Your task to perform on an android device: refresh tabs in the chrome app Image 0: 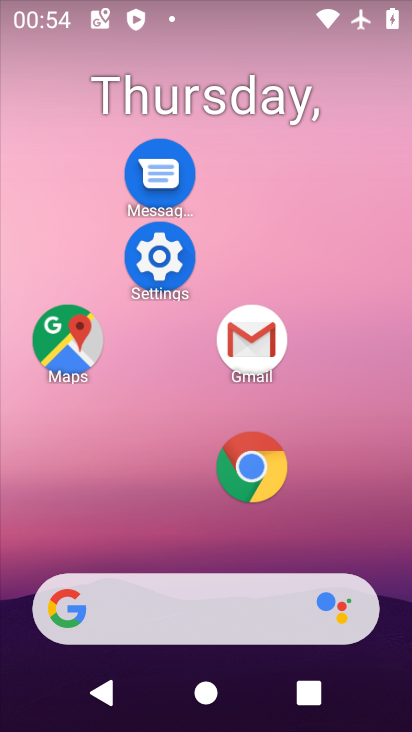
Step 0: drag from (234, 503) to (238, 136)
Your task to perform on an android device: refresh tabs in the chrome app Image 1: 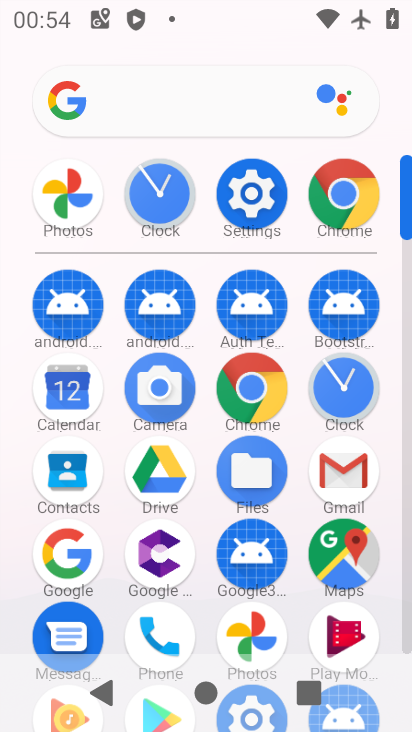
Step 1: click (247, 385)
Your task to perform on an android device: refresh tabs in the chrome app Image 2: 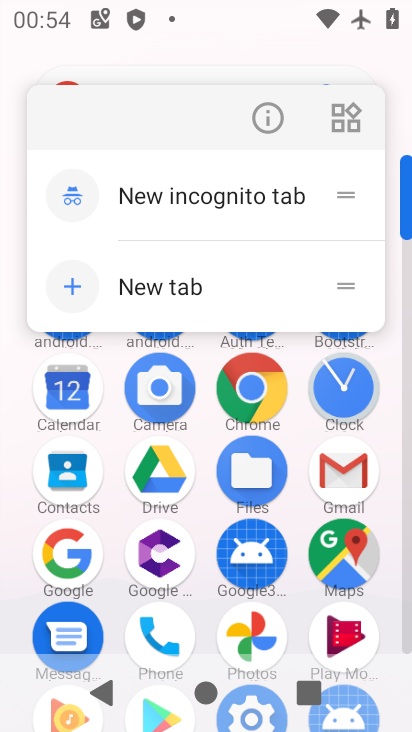
Step 2: click (271, 136)
Your task to perform on an android device: refresh tabs in the chrome app Image 3: 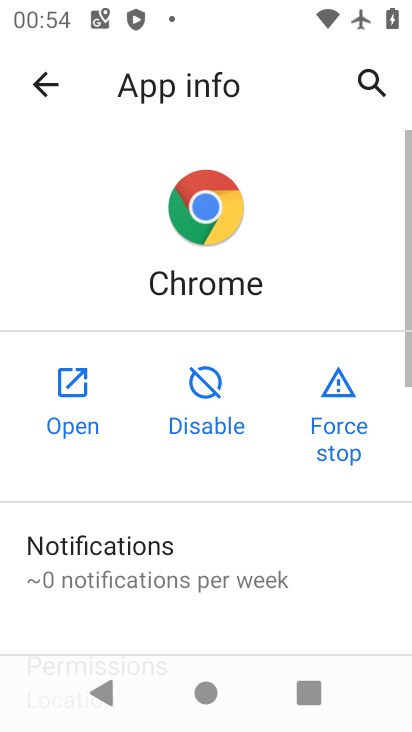
Step 3: drag from (199, 582) to (231, 230)
Your task to perform on an android device: refresh tabs in the chrome app Image 4: 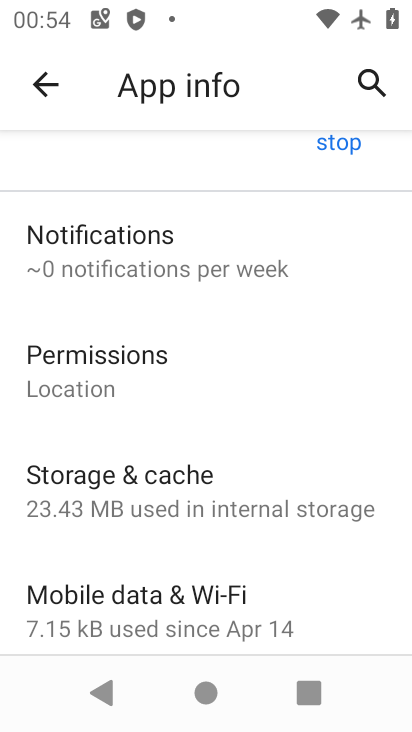
Step 4: drag from (97, 289) to (318, 721)
Your task to perform on an android device: refresh tabs in the chrome app Image 5: 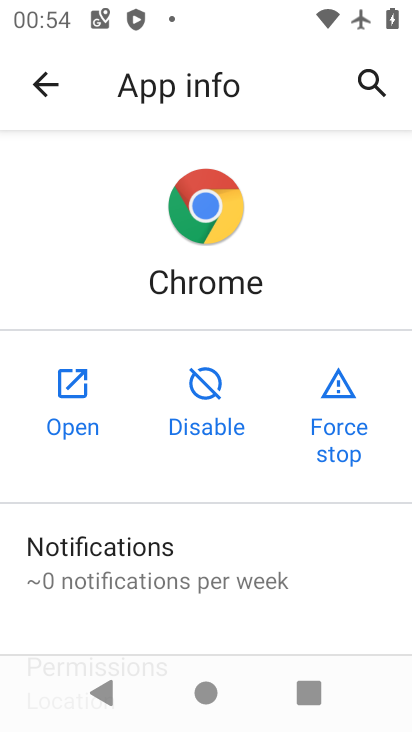
Step 5: click (75, 405)
Your task to perform on an android device: refresh tabs in the chrome app Image 6: 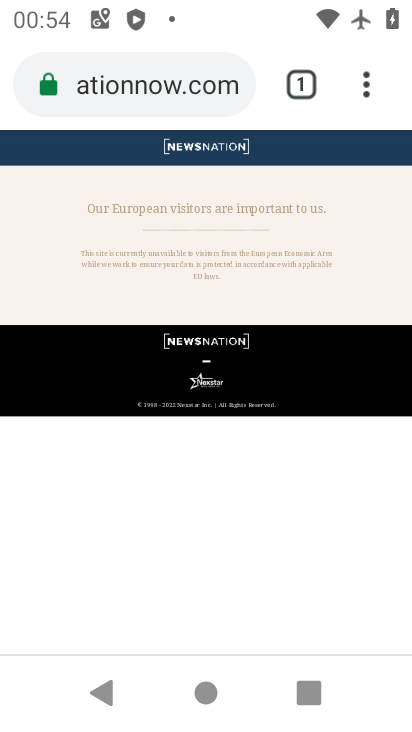
Step 6: click (373, 77)
Your task to perform on an android device: refresh tabs in the chrome app Image 7: 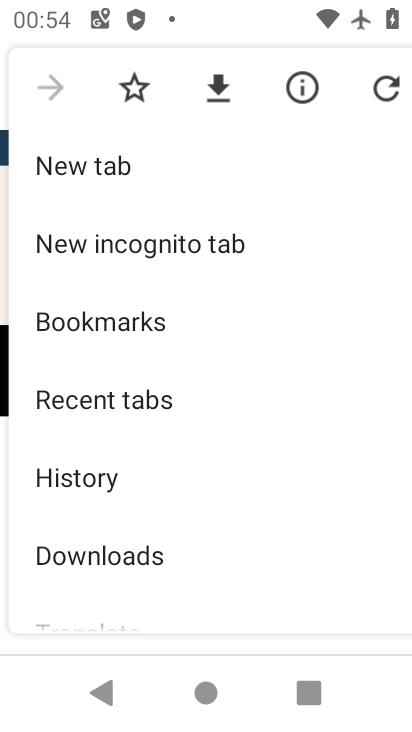
Step 7: click (373, 77)
Your task to perform on an android device: refresh tabs in the chrome app Image 8: 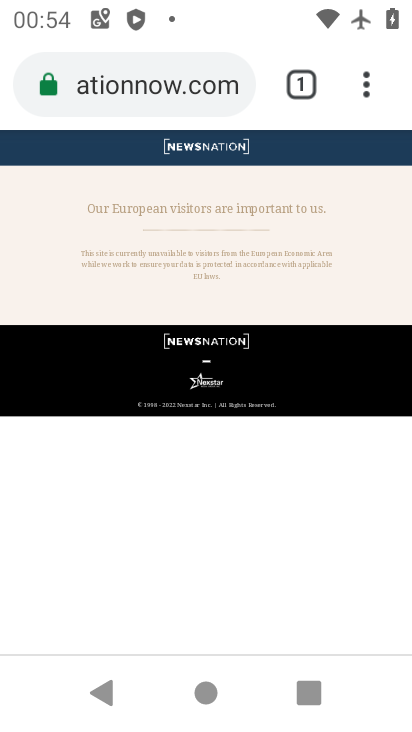
Step 8: task complete